Your task to perform on an android device: Open Android settings Image 0: 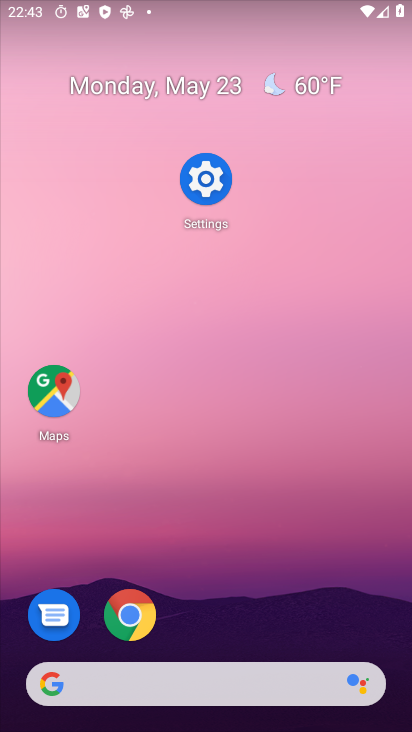
Step 0: drag from (212, 452) to (155, 80)
Your task to perform on an android device: Open Android settings Image 1: 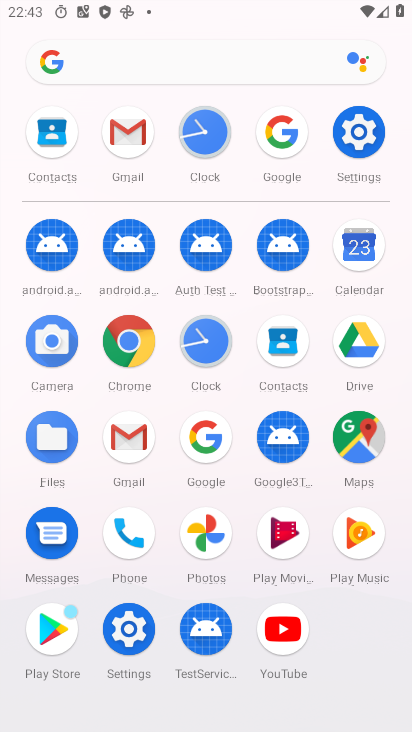
Step 1: click (356, 138)
Your task to perform on an android device: Open Android settings Image 2: 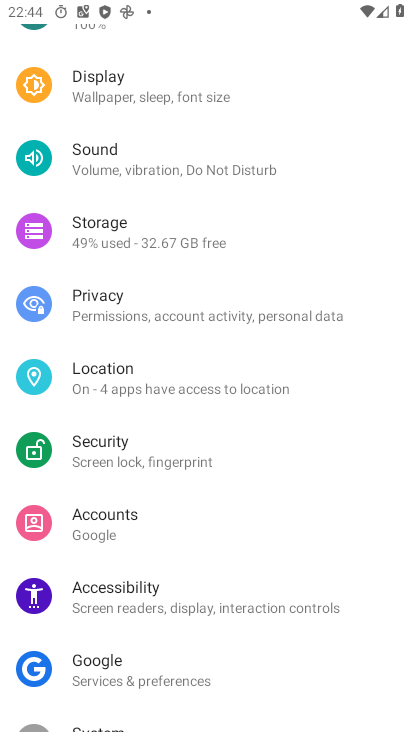
Step 2: task complete